Your task to perform on an android device: open sync settings in chrome Image 0: 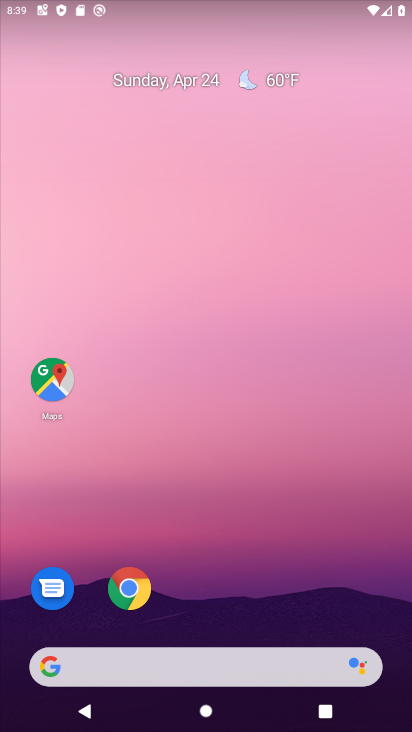
Step 0: click (127, 588)
Your task to perform on an android device: open sync settings in chrome Image 1: 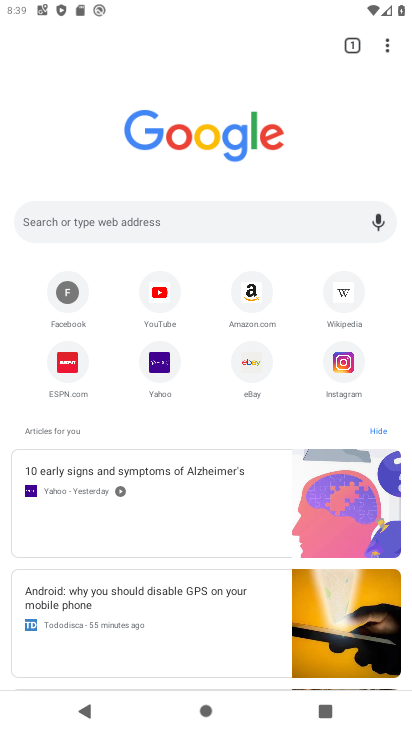
Step 1: click (388, 47)
Your task to perform on an android device: open sync settings in chrome Image 2: 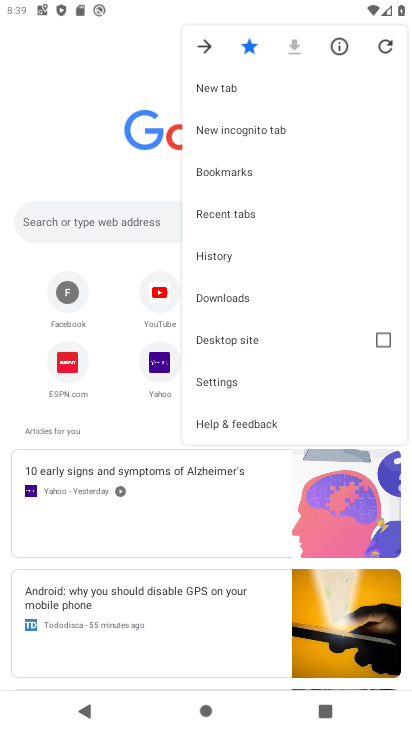
Step 2: click (229, 382)
Your task to perform on an android device: open sync settings in chrome Image 3: 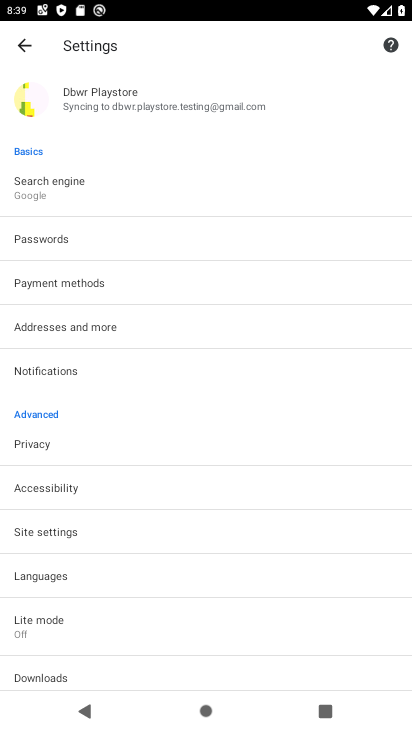
Step 3: click (62, 534)
Your task to perform on an android device: open sync settings in chrome Image 4: 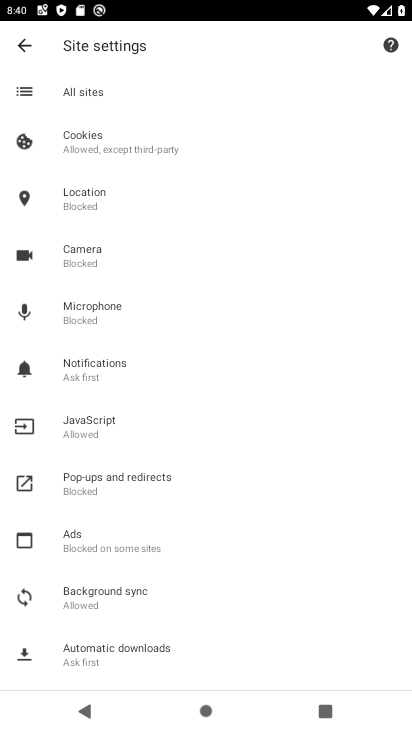
Step 4: click (88, 585)
Your task to perform on an android device: open sync settings in chrome Image 5: 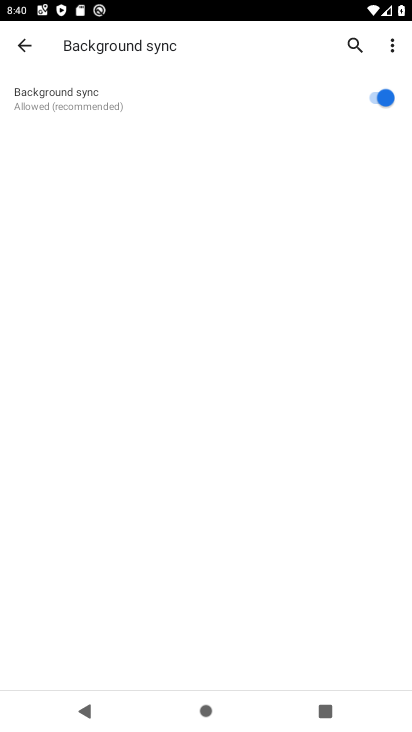
Step 5: task complete